Your task to perform on an android device: Search for pizza restaurants on Maps Image 0: 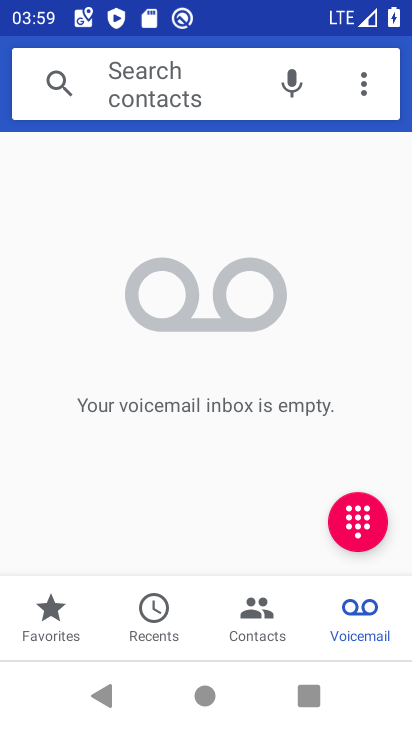
Step 0: press home button
Your task to perform on an android device: Search for pizza restaurants on Maps Image 1: 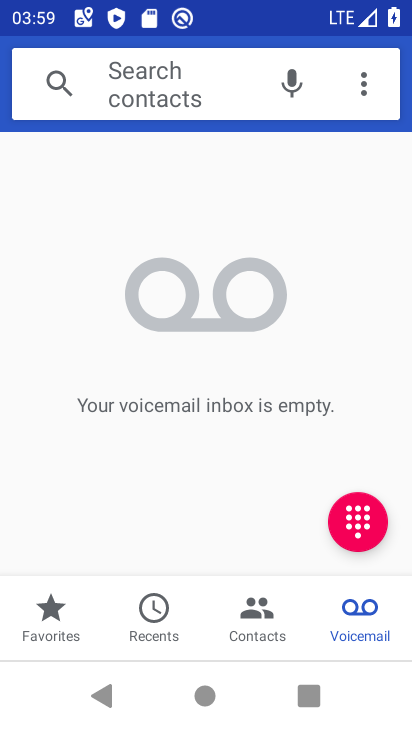
Step 1: press home button
Your task to perform on an android device: Search for pizza restaurants on Maps Image 2: 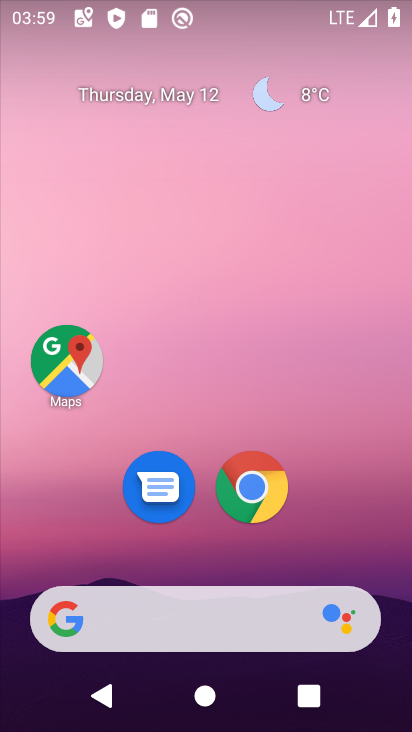
Step 2: drag from (342, 540) to (251, 115)
Your task to perform on an android device: Search for pizza restaurants on Maps Image 3: 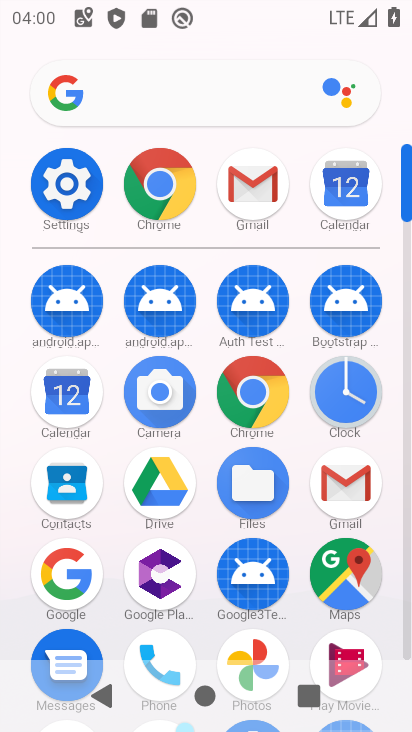
Step 3: click (336, 584)
Your task to perform on an android device: Search for pizza restaurants on Maps Image 4: 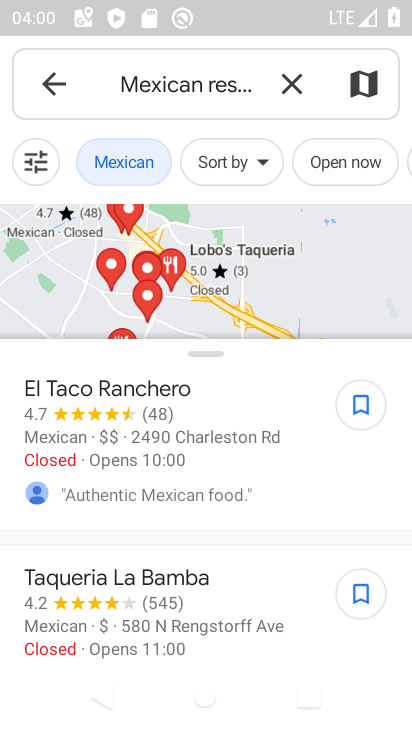
Step 4: click (157, 78)
Your task to perform on an android device: Search for pizza restaurants on Maps Image 5: 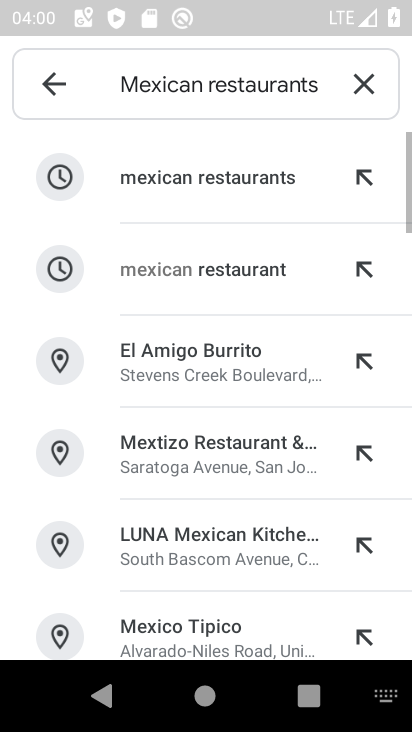
Step 5: click (361, 78)
Your task to perform on an android device: Search for pizza restaurants on Maps Image 6: 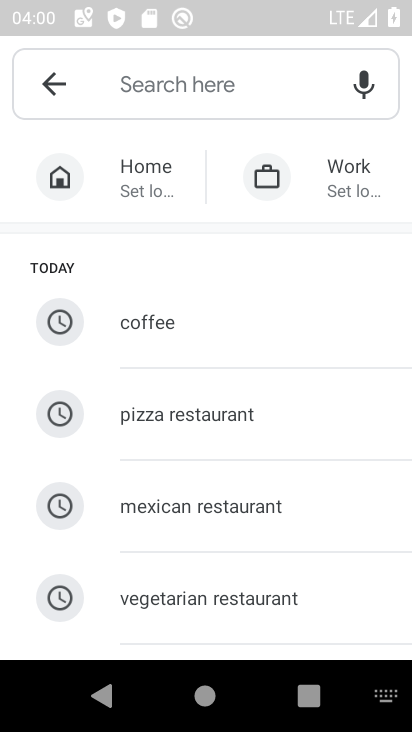
Step 6: type "pizza restaurants"
Your task to perform on an android device: Search for pizza restaurants on Maps Image 7: 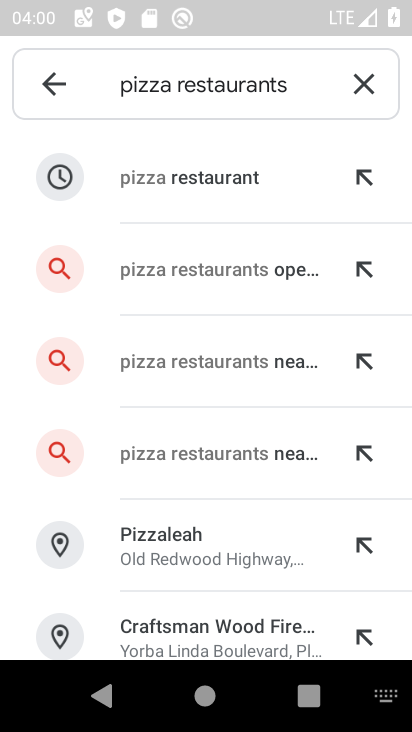
Step 7: press enter
Your task to perform on an android device: Search for pizza restaurants on Maps Image 8: 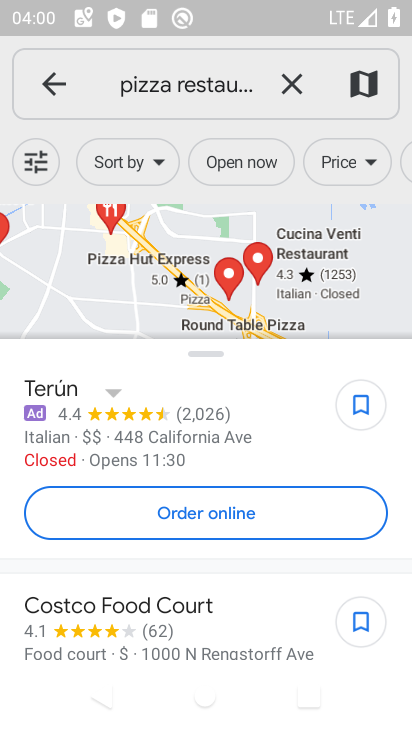
Step 8: task complete